Your task to perform on an android device: See recent photos Image 0: 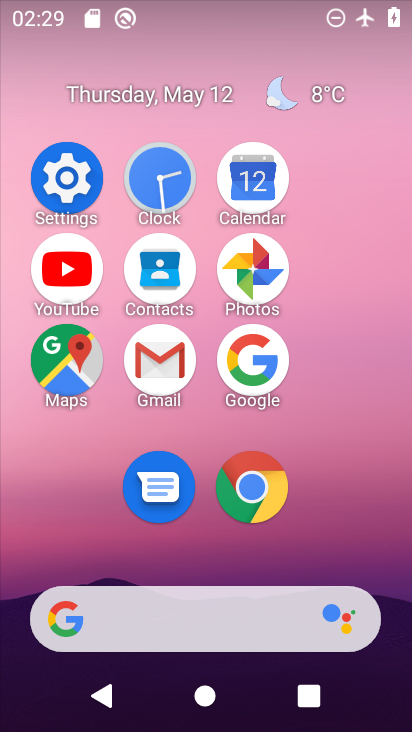
Step 0: click (274, 259)
Your task to perform on an android device: See recent photos Image 1: 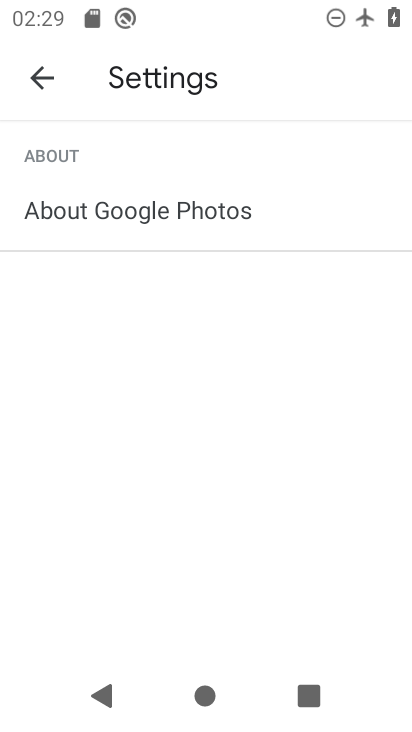
Step 1: click (58, 72)
Your task to perform on an android device: See recent photos Image 2: 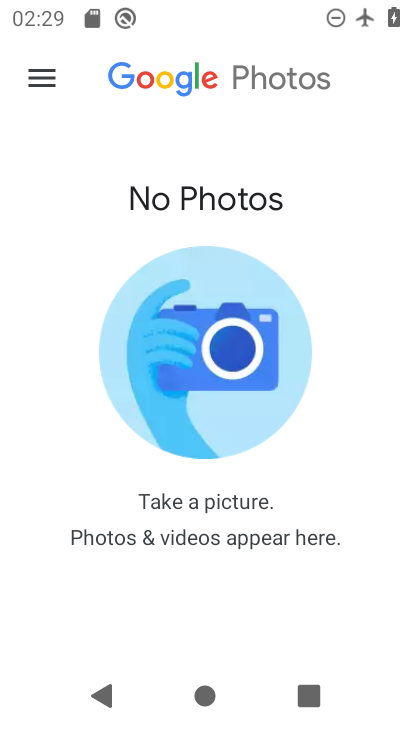
Step 2: click (43, 92)
Your task to perform on an android device: See recent photos Image 3: 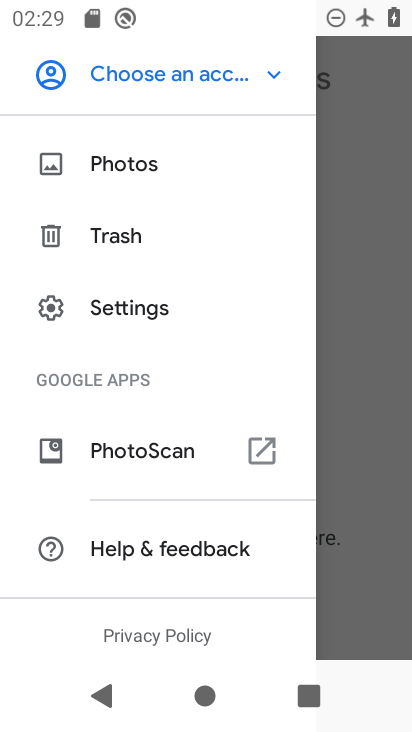
Step 3: click (130, 170)
Your task to perform on an android device: See recent photos Image 4: 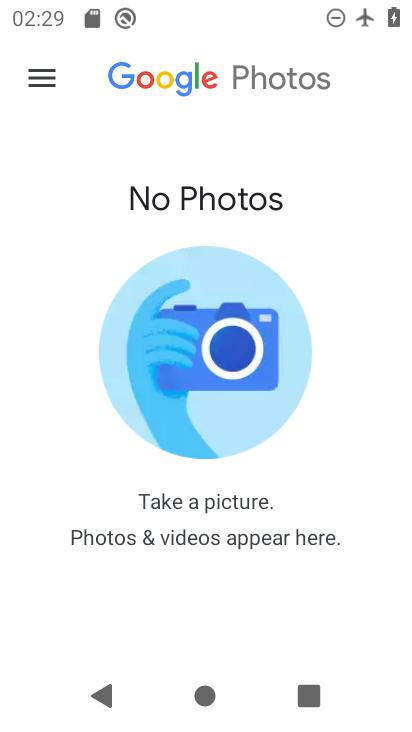
Step 4: task complete